Your task to perform on an android device: find photos in the google photos app Image 0: 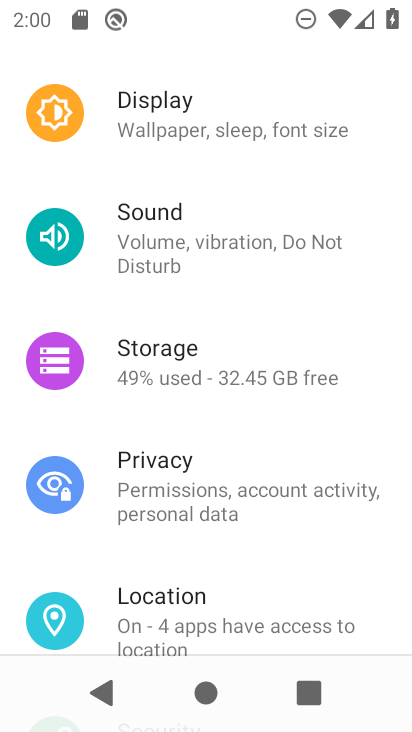
Step 0: press home button
Your task to perform on an android device: find photos in the google photos app Image 1: 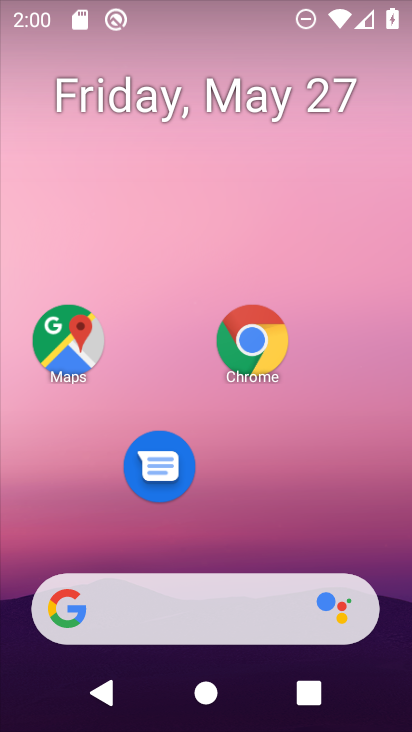
Step 1: drag from (367, 582) to (354, 8)
Your task to perform on an android device: find photos in the google photos app Image 2: 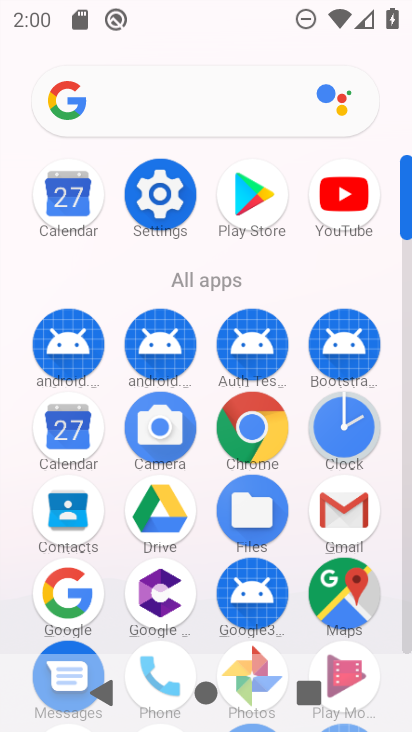
Step 2: drag from (197, 489) to (187, 256)
Your task to perform on an android device: find photos in the google photos app Image 3: 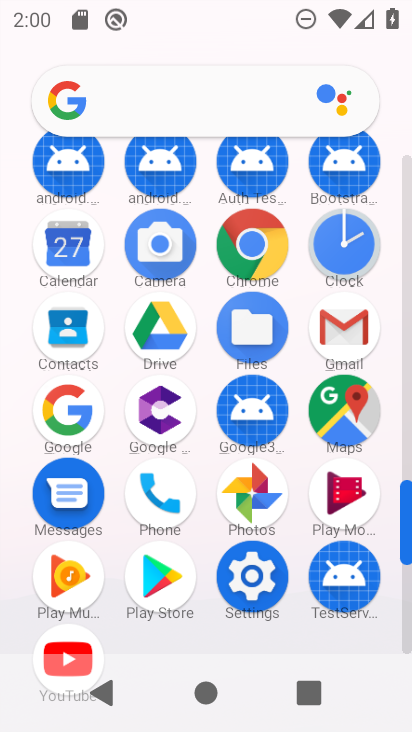
Step 3: click (263, 480)
Your task to perform on an android device: find photos in the google photos app Image 4: 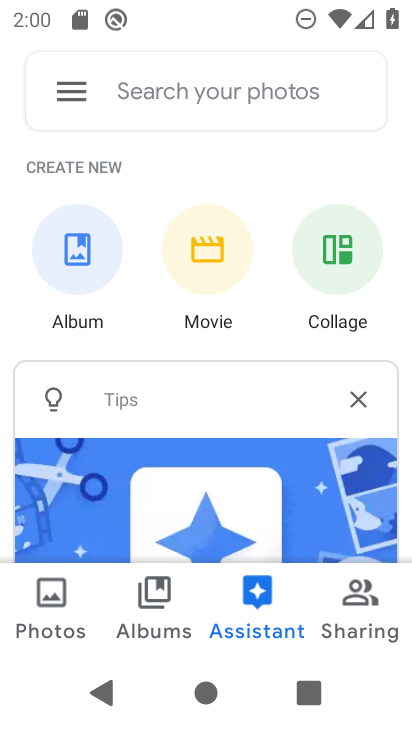
Step 4: click (60, 631)
Your task to perform on an android device: find photos in the google photos app Image 5: 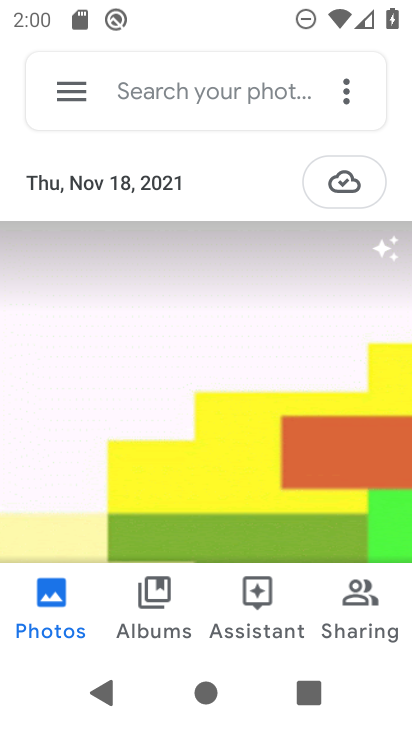
Step 5: task complete